Your task to perform on an android device: toggle improve location accuracy Image 0: 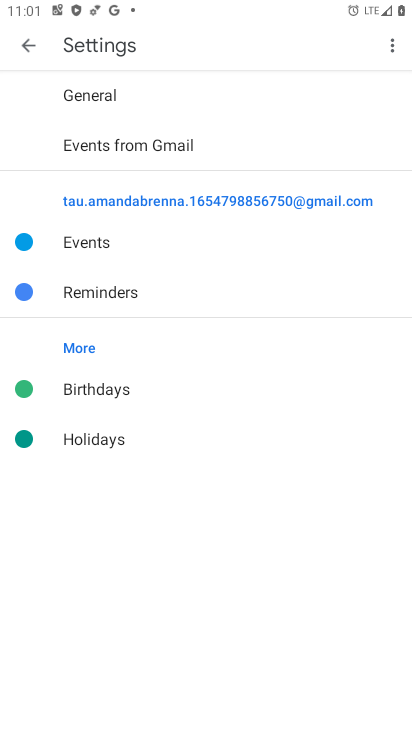
Step 0: press home button
Your task to perform on an android device: toggle improve location accuracy Image 1: 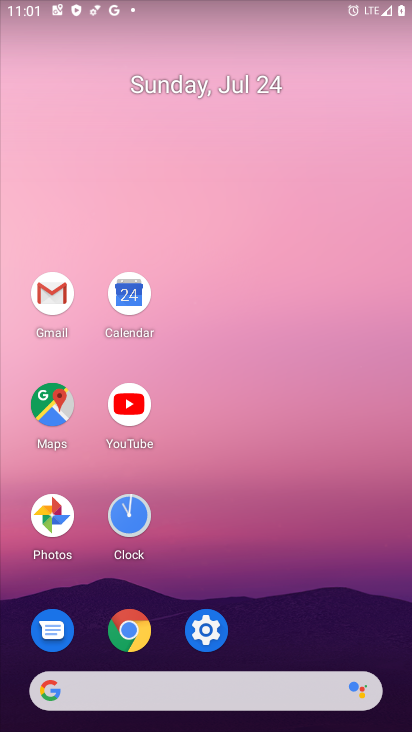
Step 1: click (205, 631)
Your task to perform on an android device: toggle improve location accuracy Image 2: 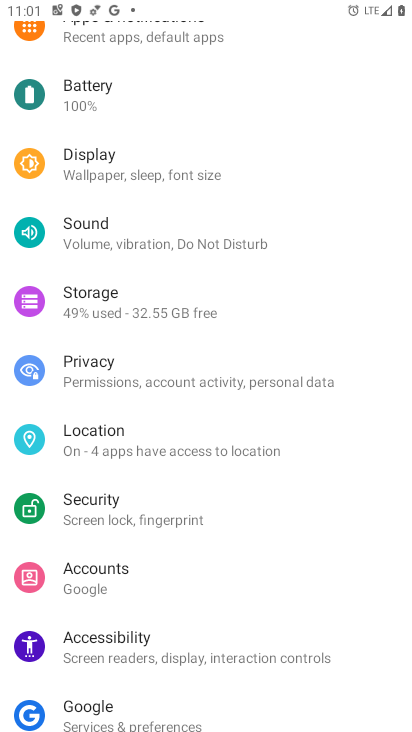
Step 2: click (105, 439)
Your task to perform on an android device: toggle improve location accuracy Image 3: 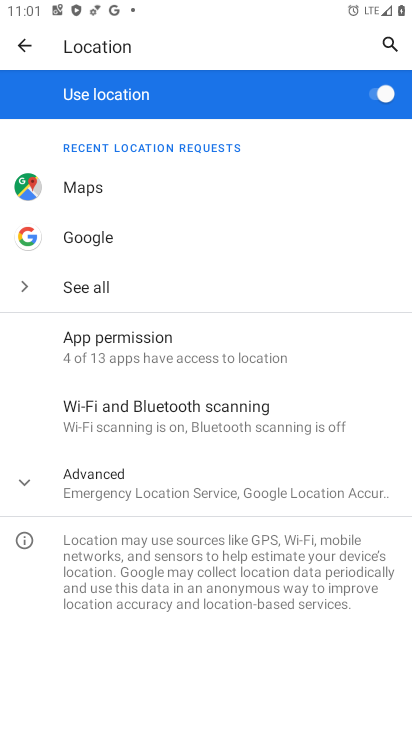
Step 3: click (27, 485)
Your task to perform on an android device: toggle improve location accuracy Image 4: 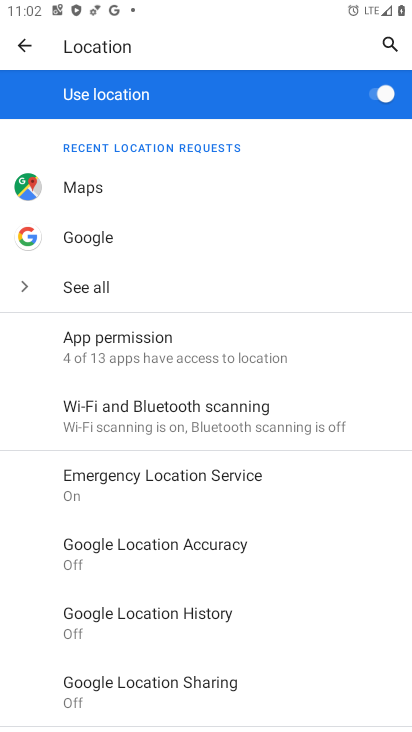
Step 4: click (202, 540)
Your task to perform on an android device: toggle improve location accuracy Image 5: 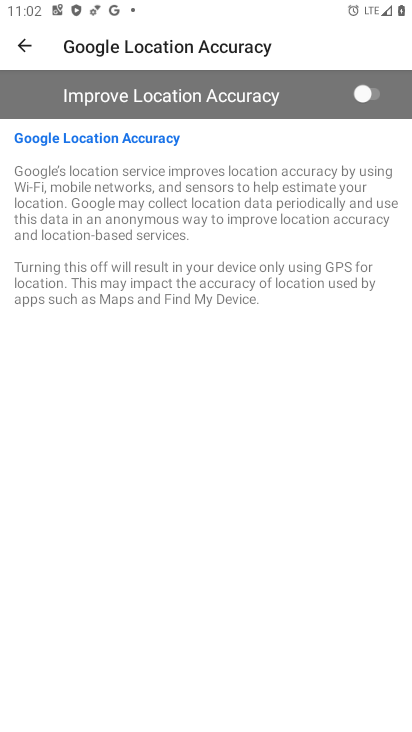
Step 5: click (373, 101)
Your task to perform on an android device: toggle improve location accuracy Image 6: 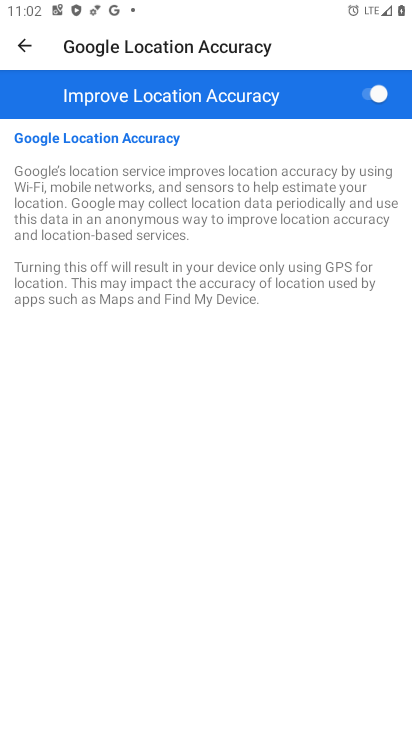
Step 6: task complete